Your task to perform on an android device: Turn on the flashlight Image 0: 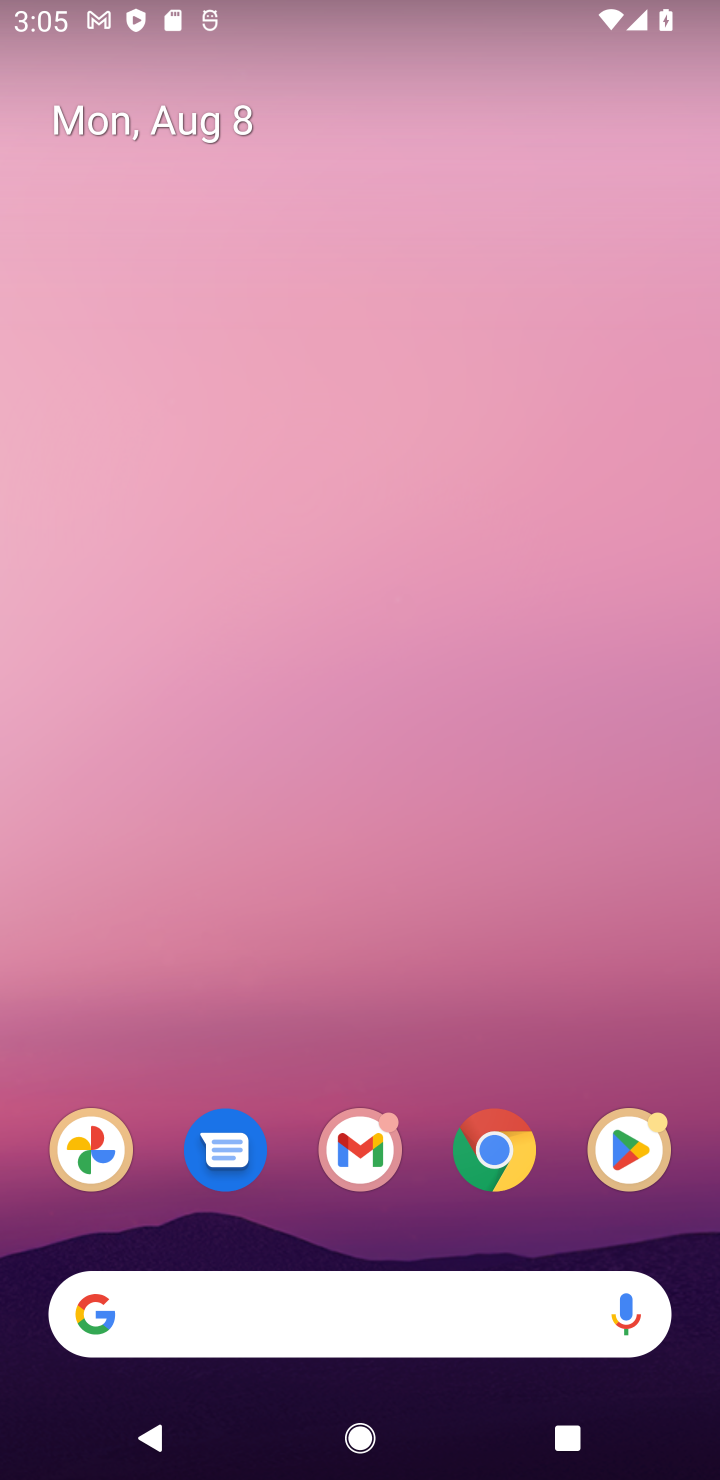
Step 0: task complete